Your task to perform on an android device: Do I have any events this weekend? Image 0: 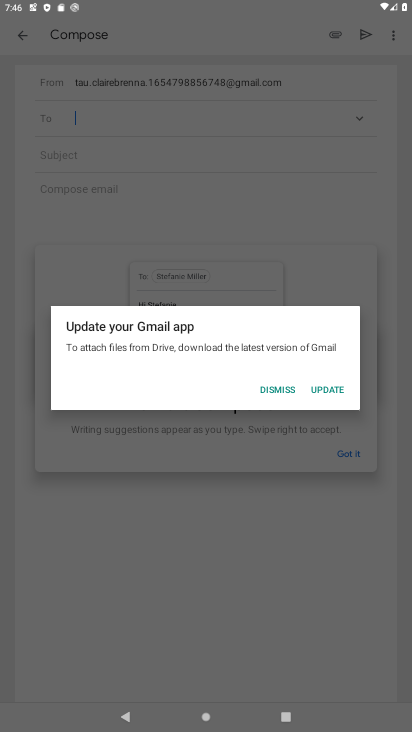
Step 0: press home button
Your task to perform on an android device: Do I have any events this weekend? Image 1: 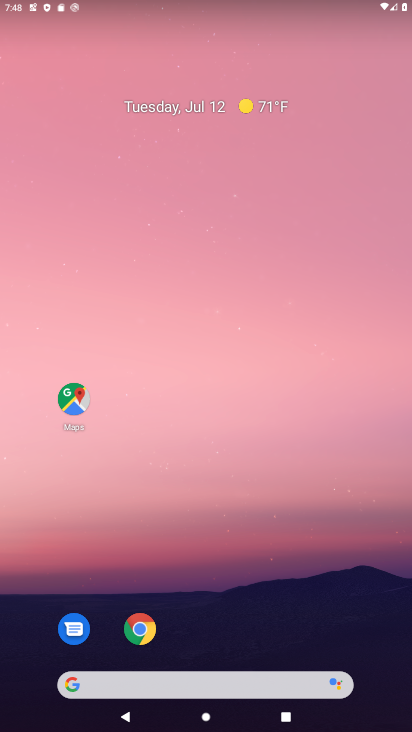
Step 1: drag from (402, 706) to (377, 221)
Your task to perform on an android device: Do I have any events this weekend? Image 2: 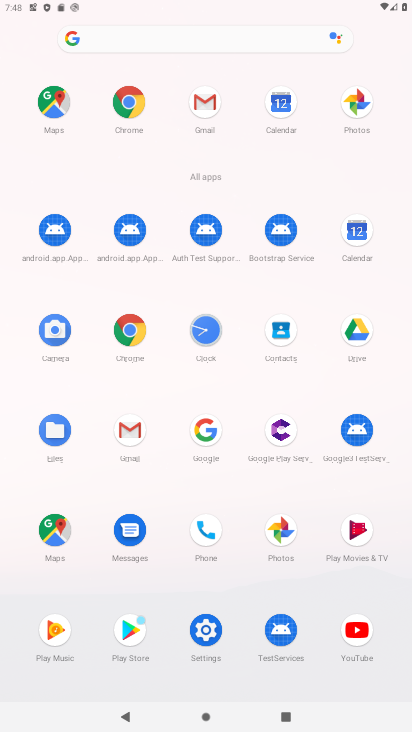
Step 2: click (352, 241)
Your task to perform on an android device: Do I have any events this weekend? Image 3: 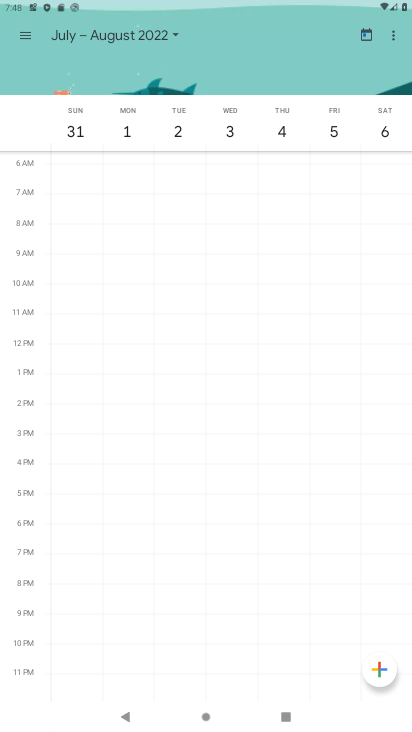
Step 3: drag from (90, 222) to (386, 263)
Your task to perform on an android device: Do I have any events this weekend? Image 4: 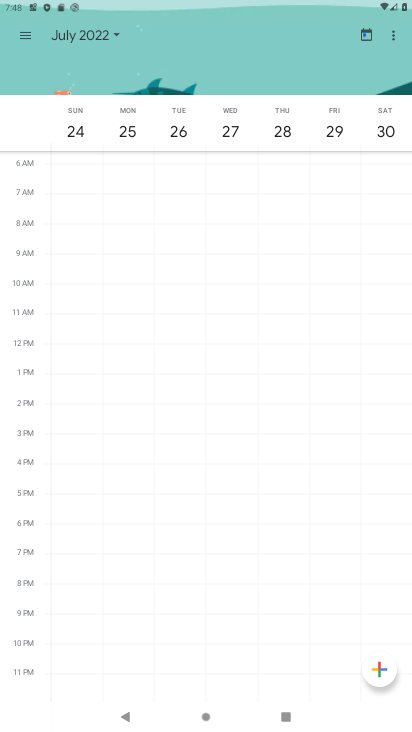
Step 4: click (112, 36)
Your task to perform on an android device: Do I have any events this weekend? Image 5: 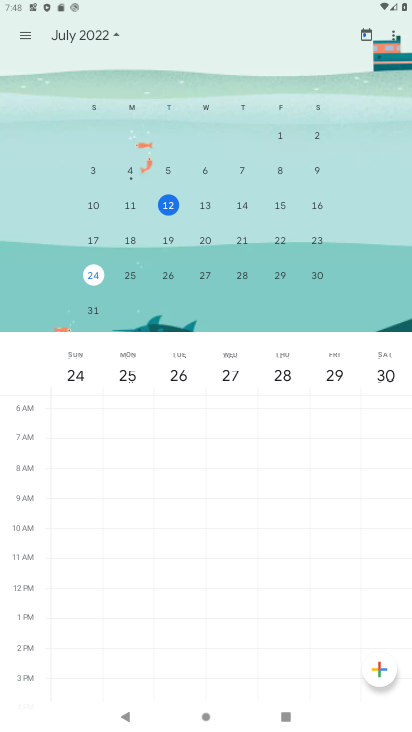
Step 5: click (168, 201)
Your task to perform on an android device: Do I have any events this weekend? Image 6: 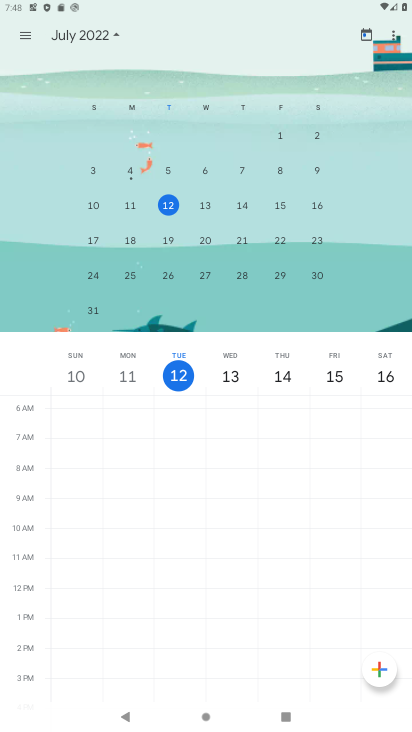
Step 6: click (24, 33)
Your task to perform on an android device: Do I have any events this weekend? Image 7: 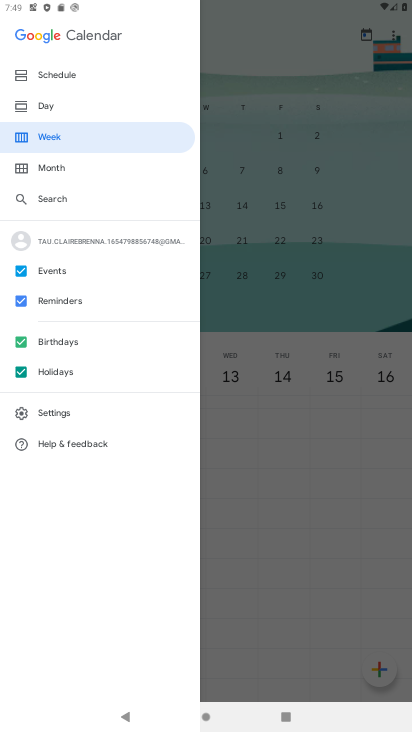
Step 7: click (51, 137)
Your task to perform on an android device: Do I have any events this weekend? Image 8: 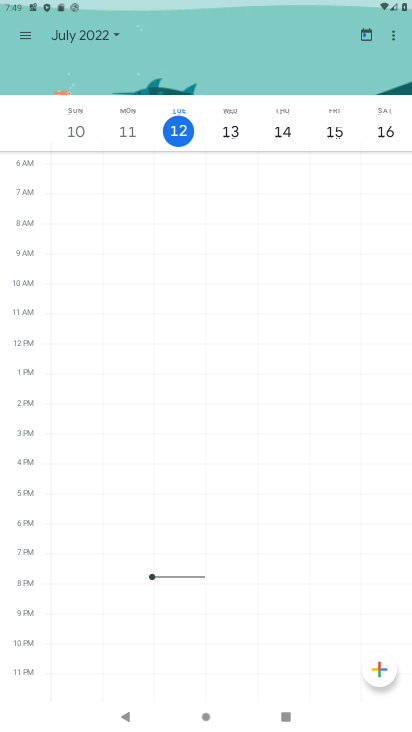
Step 8: task complete